Your task to perform on an android device: check out phone information Image 0: 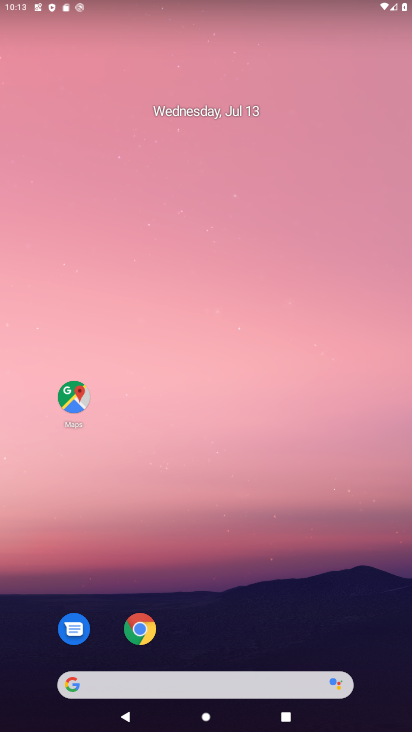
Step 0: press home button
Your task to perform on an android device: check out phone information Image 1: 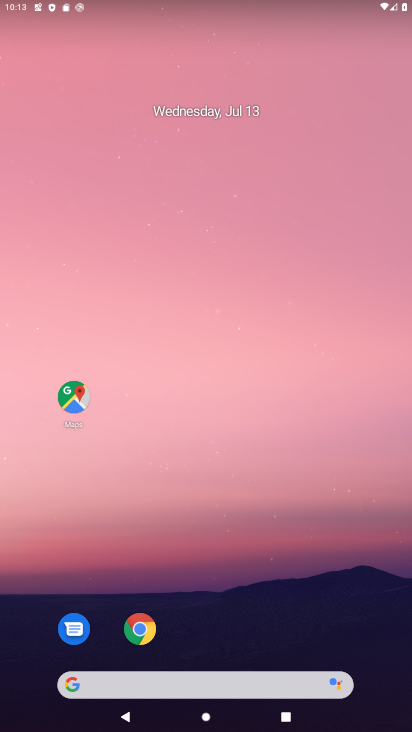
Step 1: drag from (205, 650) to (244, 6)
Your task to perform on an android device: check out phone information Image 2: 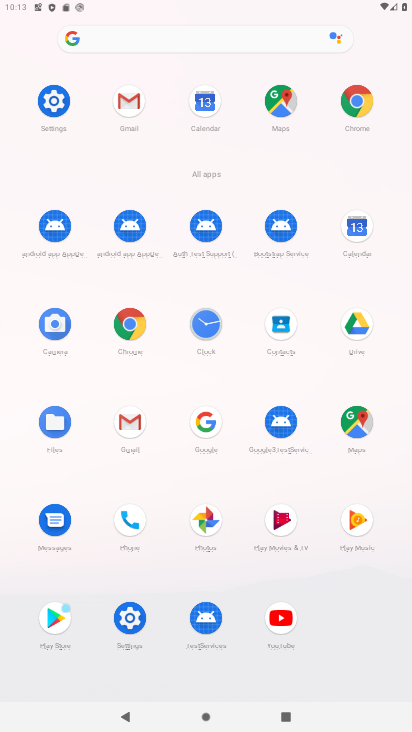
Step 2: click (52, 94)
Your task to perform on an android device: check out phone information Image 3: 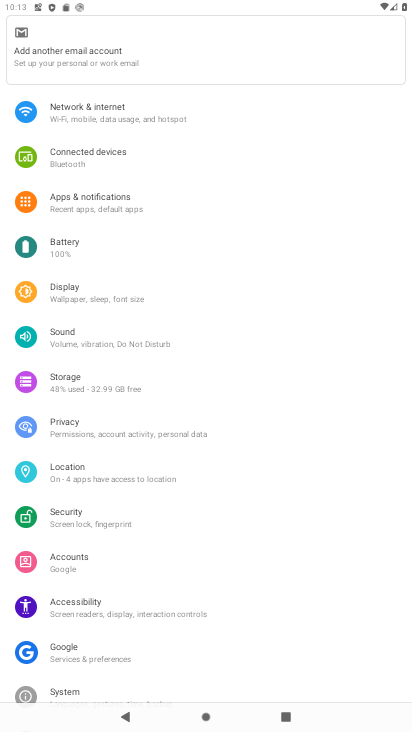
Step 3: drag from (190, 635) to (207, 149)
Your task to perform on an android device: check out phone information Image 4: 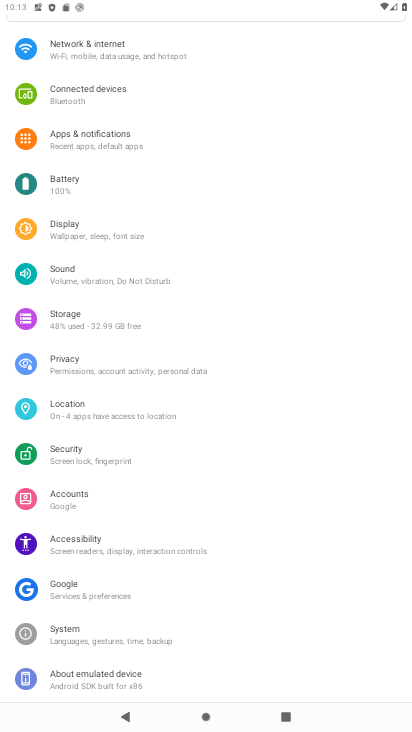
Step 4: click (150, 676)
Your task to perform on an android device: check out phone information Image 5: 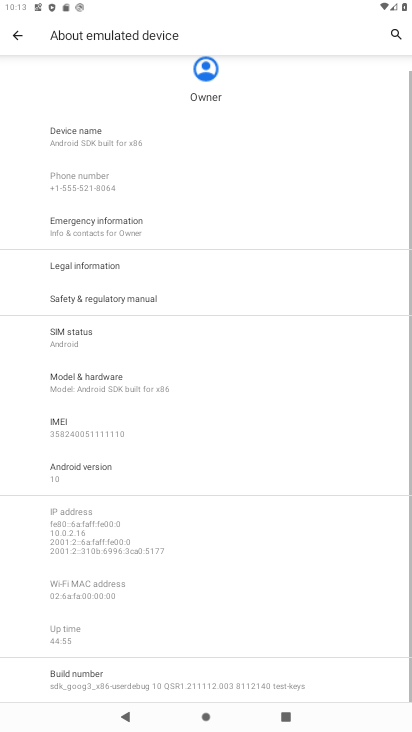
Step 5: task complete